Your task to perform on an android device: Do I have any events this weekend? Image 0: 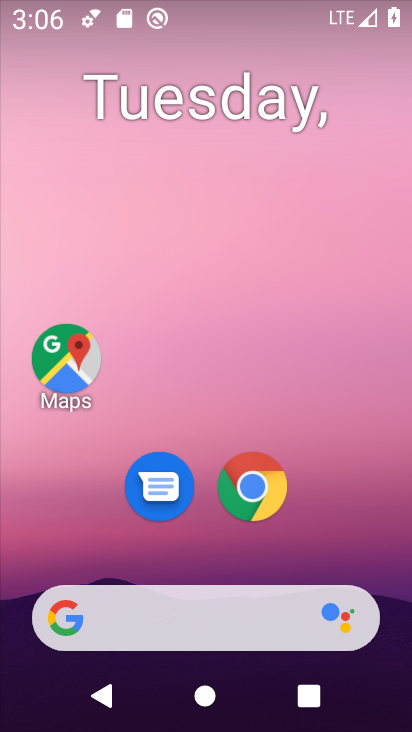
Step 0: drag from (357, 538) to (350, 108)
Your task to perform on an android device: Do I have any events this weekend? Image 1: 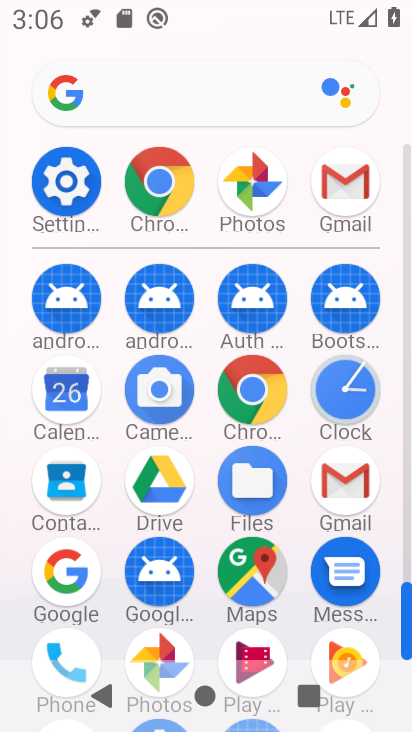
Step 1: click (71, 391)
Your task to perform on an android device: Do I have any events this weekend? Image 2: 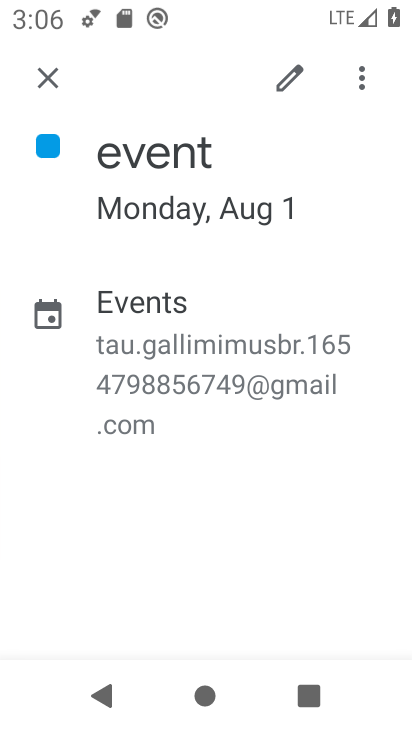
Step 2: task complete